Your task to perform on an android device: When is my next appointment? Image 0: 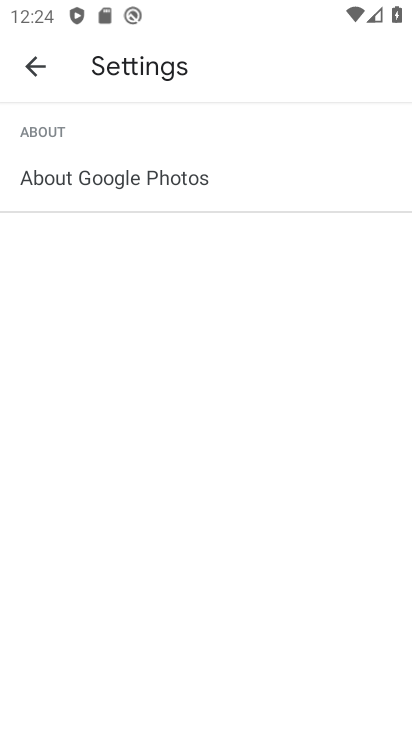
Step 0: press home button
Your task to perform on an android device: When is my next appointment? Image 1: 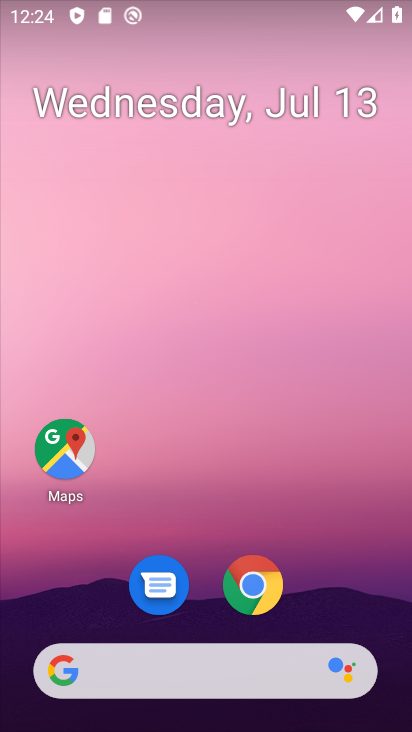
Step 1: drag from (320, 607) to (316, 43)
Your task to perform on an android device: When is my next appointment? Image 2: 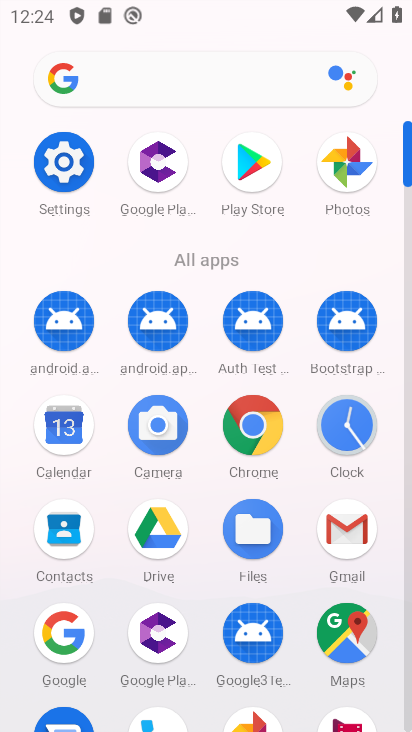
Step 2: click (71, 422)
Your task to perform on an android device: When is my next appointment? Image 3: 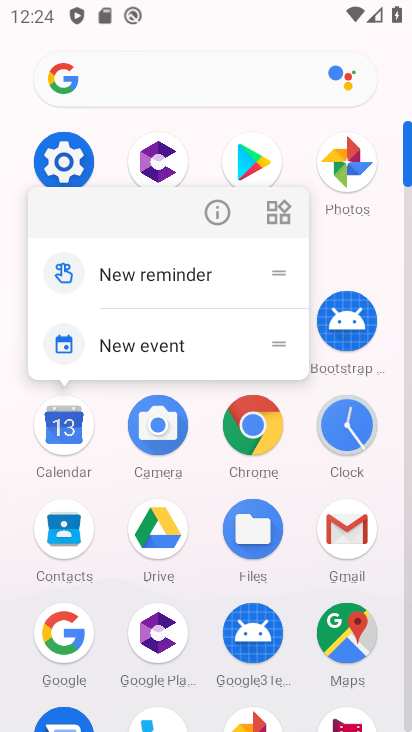
Step 3: click (71, 422)
Your task to perform on an android device: When is my next appointment? Image 4: 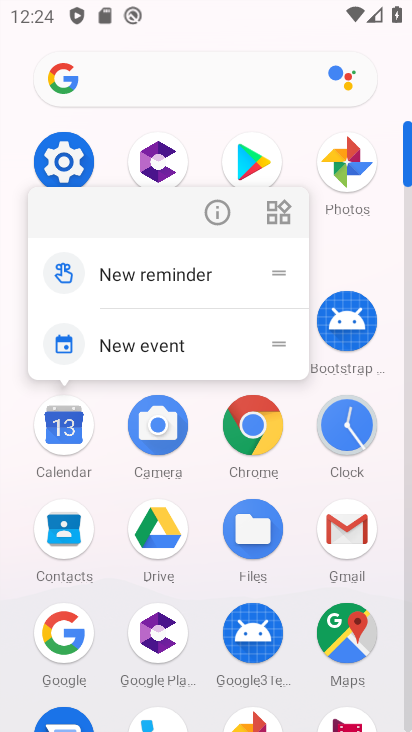
Step 4: click (66, 444)
Your task to perform on an android device: When is my next appointment? Image 5: 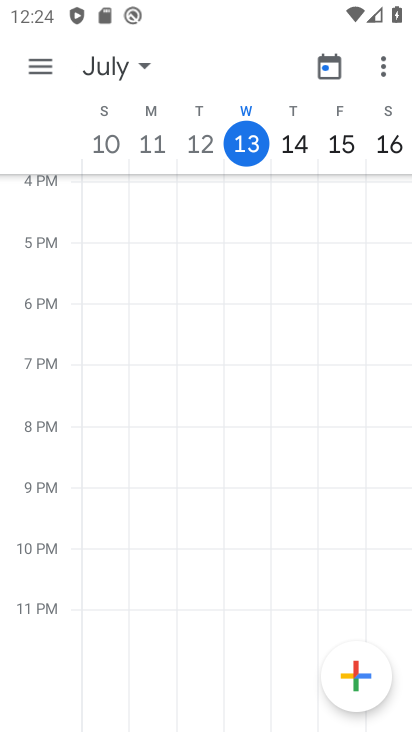
Step 5: task complete